Your task to perform on an android device: Show me recent news Image 0: 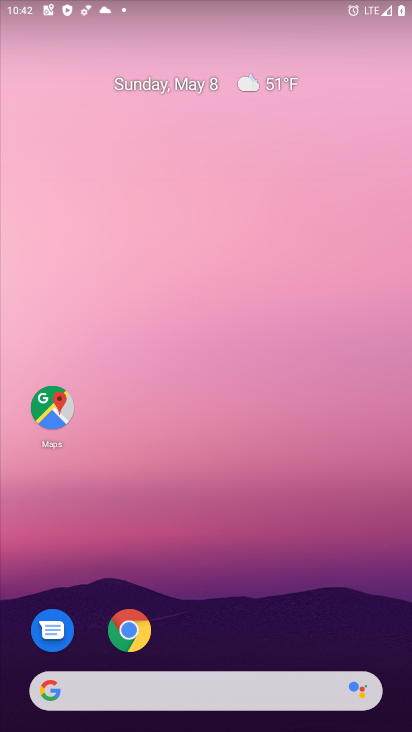
Step 0: drag from (368, 657) to (267, 17)
Your task to perform on an android device: Show me recent news Image 1: 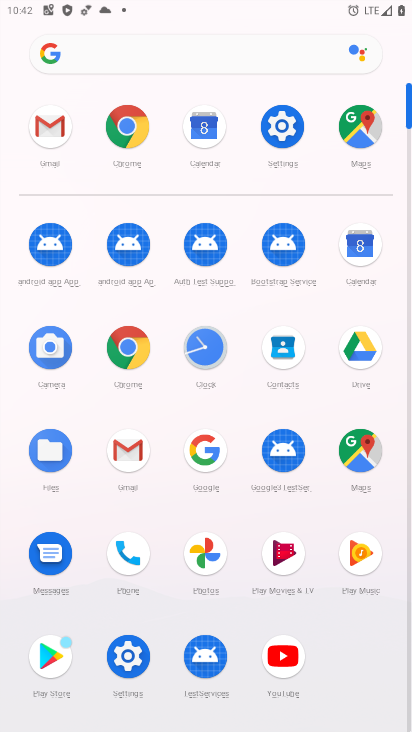
Step 1: click (122, 350)
Your task to perform on an android device: Show me recent news Image 2: 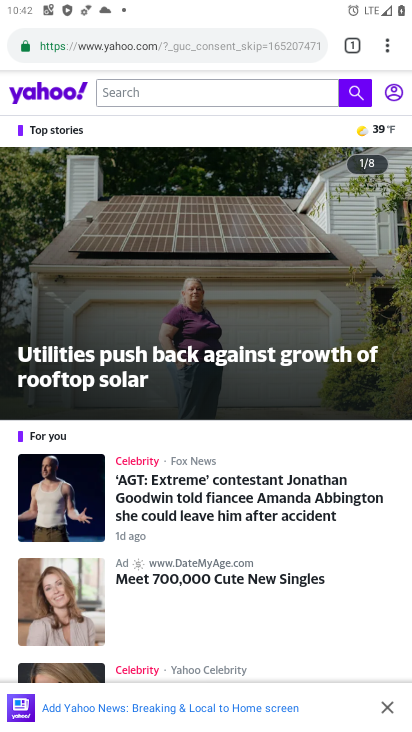
Step 2: press back button
Your task to perform on an android device: Show me recent news Image 3: 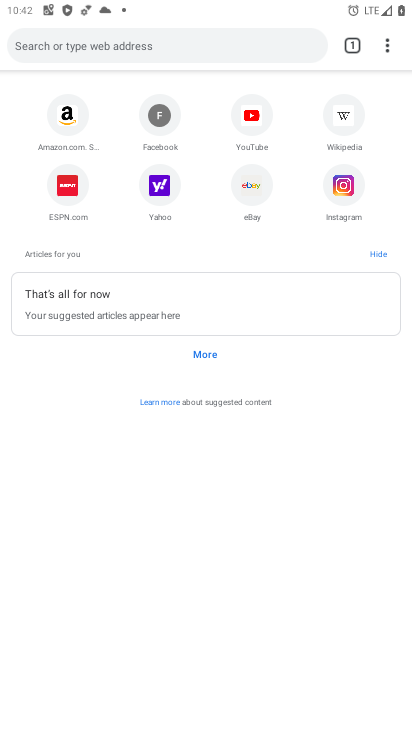
Step 3: click (198, 351)
Your task to perform on an android device: Show me recent news Image 4: 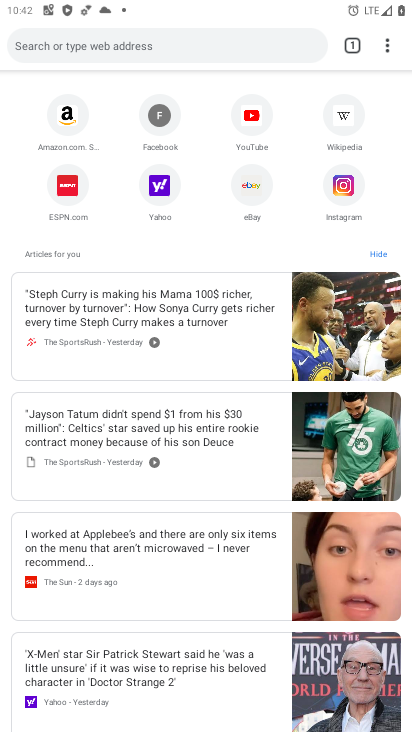
Step 4: click (137, 323)
Your task to perform on an android device: Show me recent news Image 5: 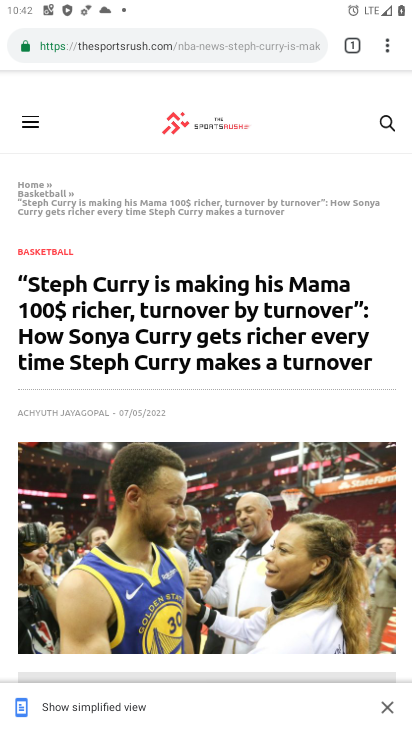
Step 5: task complete